Your task to perform on an android device: change the clock display to analog Image 0: 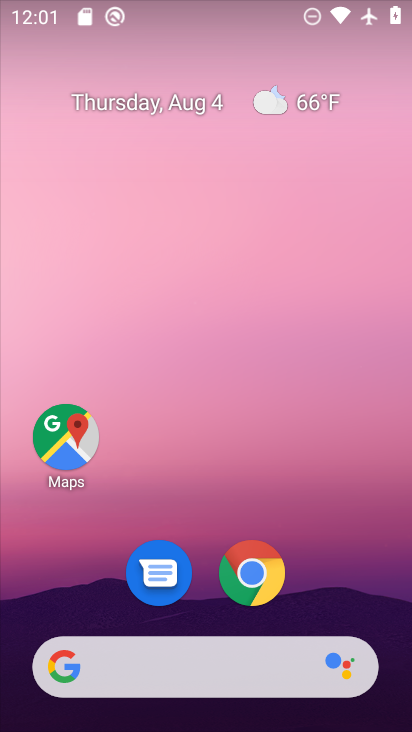
Step 0: drag from (326, 516) to (301, 157)
Your task to perform on an android device: change the clock display to analog Image 1: 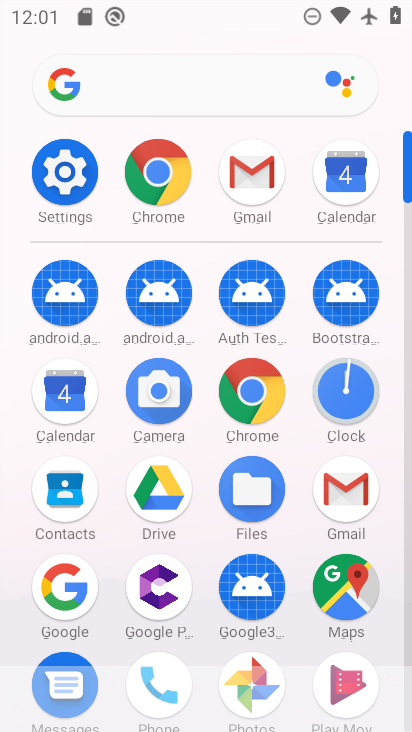
Step 1: click (350, 394)
Your task to perform on an android device: change the clock display to analog Image 2: 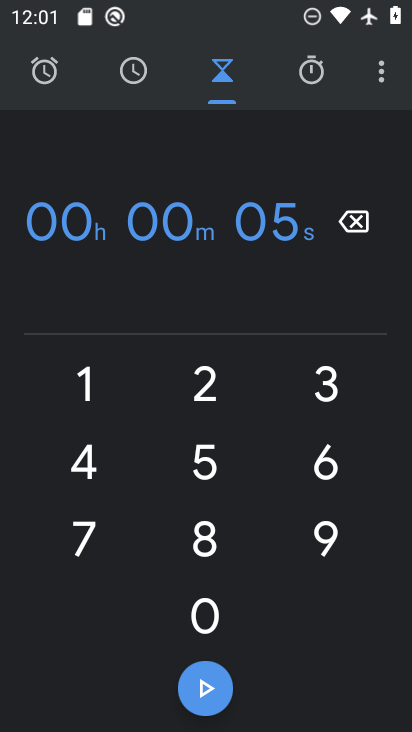
Step 2: click (377, 83)
Your task to perform on an android device: change the clock display to analog Image 3: 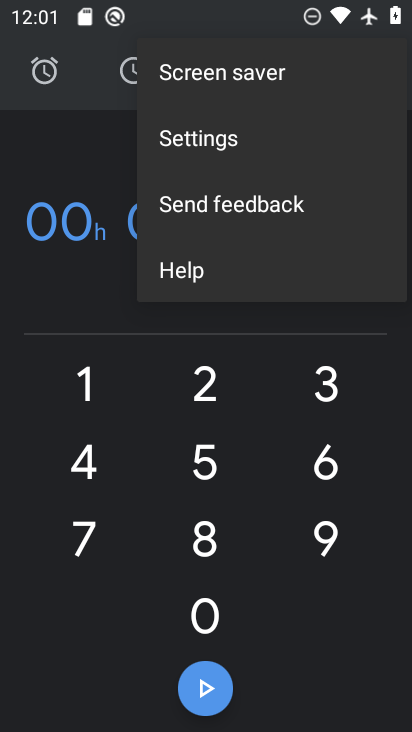
Step 3: click (254, 129)
Your task to perform on an android device: change the clock display to analog Image 4: 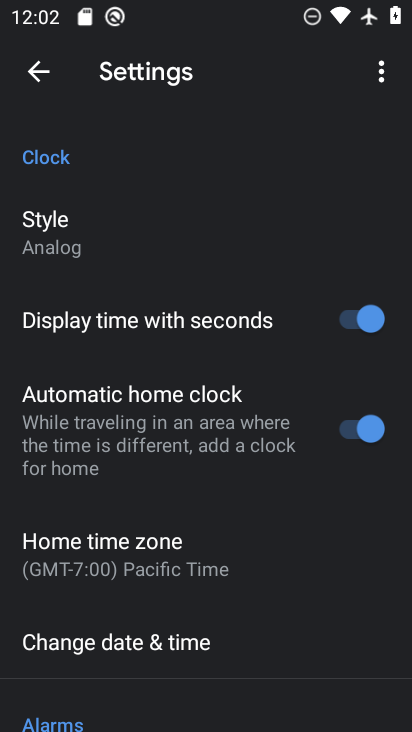
Step 4: task complete